Your task to perform on an android device: Add usb-b to the cart on costco, then select checkout. Image 0: 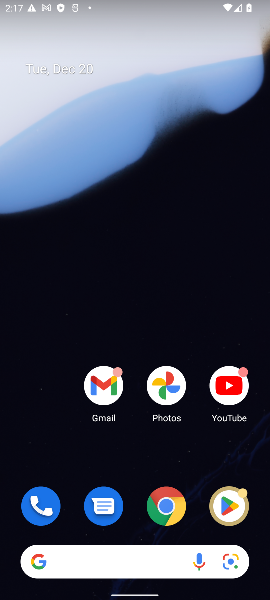
Step 0: click (173, 506)
Your task to perform on an android device: Add usb-b to the cart on costco, then select checkout. Image 1: 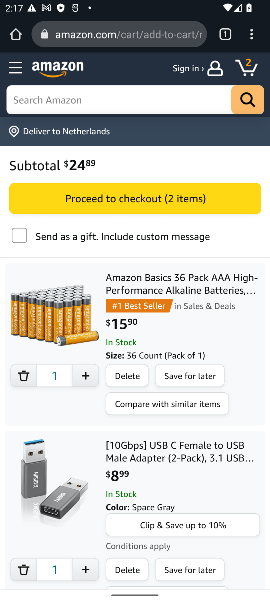
Step 1: click (89, 35)
Your task to perform on an android device: Add usb-b to the cart on costco, then select checkout. Image 2: 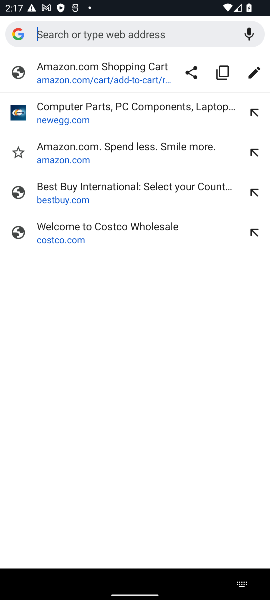
Step 2: type "costco"
Your task to perform on an android device: Add usb-b to the cart on costco, then select checkout. Image 3: 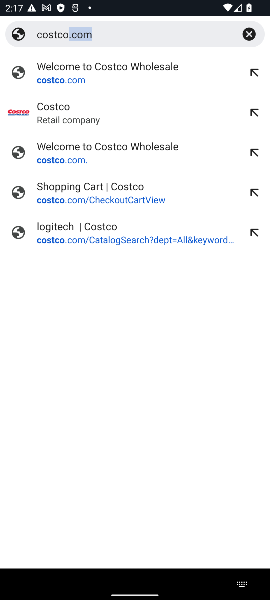
Step 3: click (110, 68)
Your task to perform on an android device: Add usb-b to the cart on costco, then select checkout. Image 4: 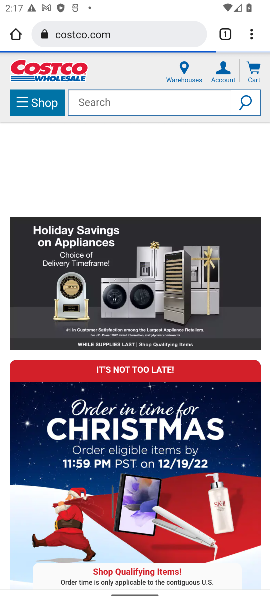
Step 4: click (118, 105)
Your task to perform on an android device: Add usb-b to the cart on costco, then select checkout. Image 5: 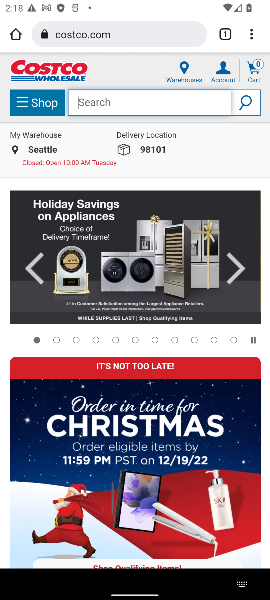
Step 5: type "usb-b"
Your task to perform on an android device: Add usb-b to the cart on costco, then select checkout. Image 6: 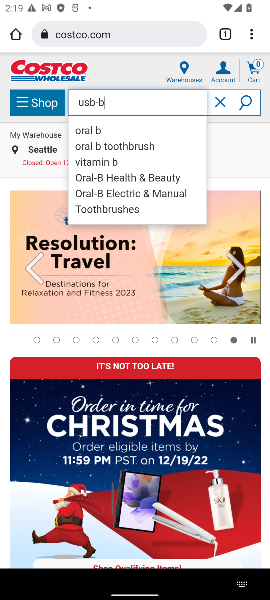
Step 6: click (244, 100)
Your task to perform on an android device: Add usb-b to the cart on costco, then select checkout. Image 7: 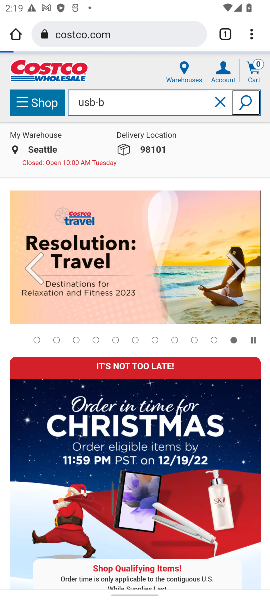
Step 7: task complete